Your task to perform on an android device: Open Google Image 0: 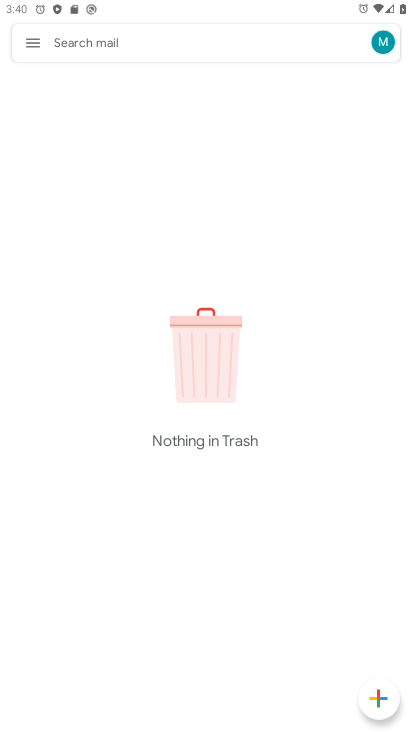
Step 0: press home button
Your task to perform on an android device: Open Google Image 1: 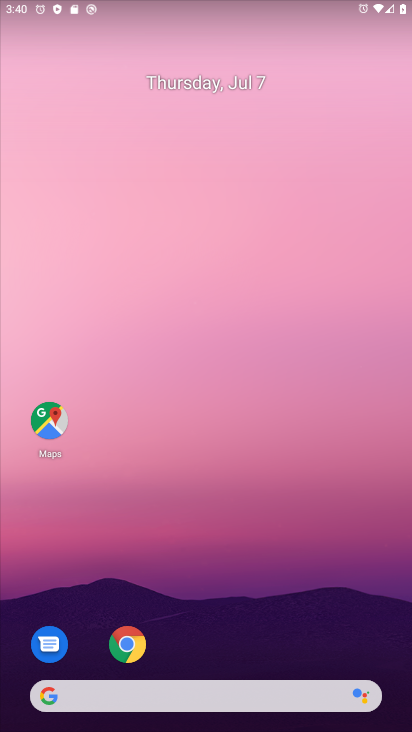
Step 1: drag from (178, 550) to (173, 165)
Your task to perform on an android device: Open Google Image 2: 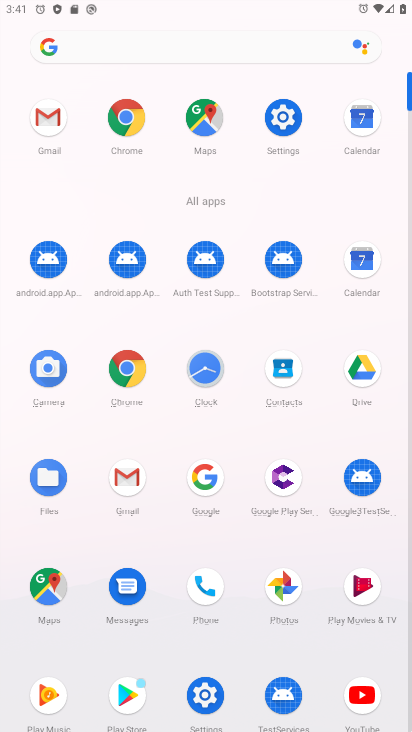
Step 2: click (193, 483)
Your task to perform on an android device: Open Google Image 3: 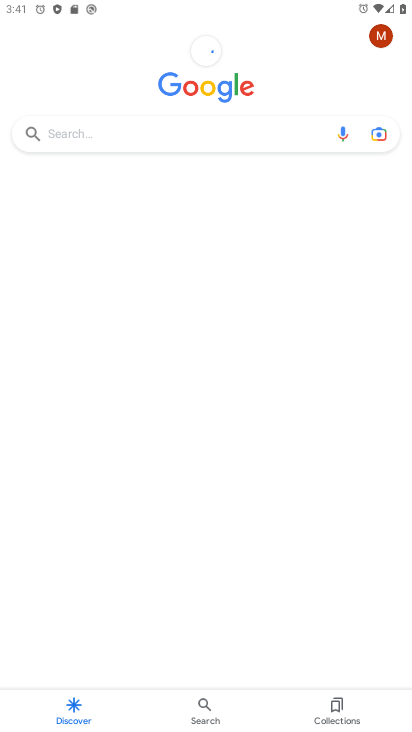
Step 3: task complete